Your task to perform on an android device: Is it going to rain today? Image 0: 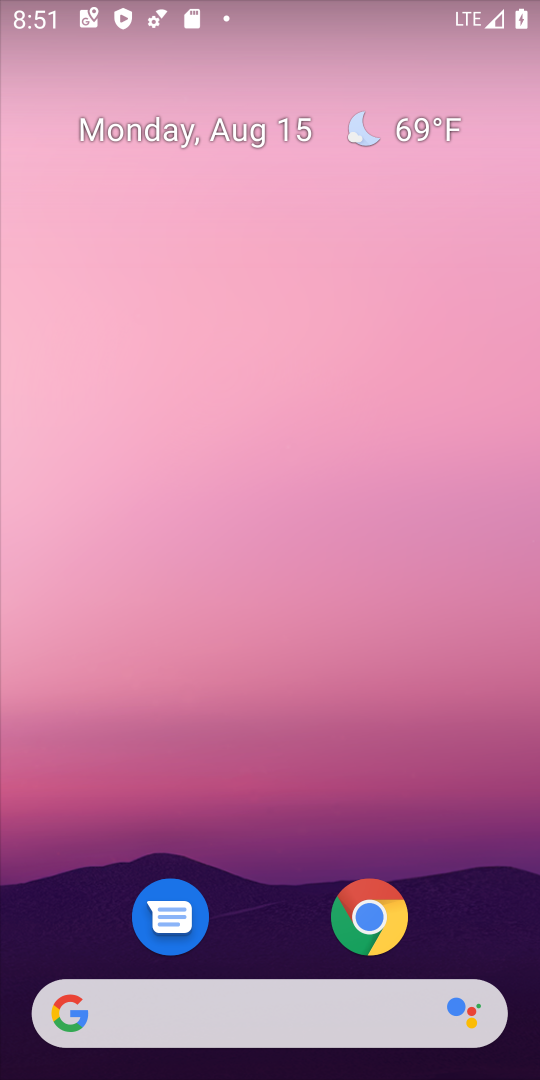
Step 0: click (425, 132)
Your task to perform on an android device: Is it going to rain today? Image 1: 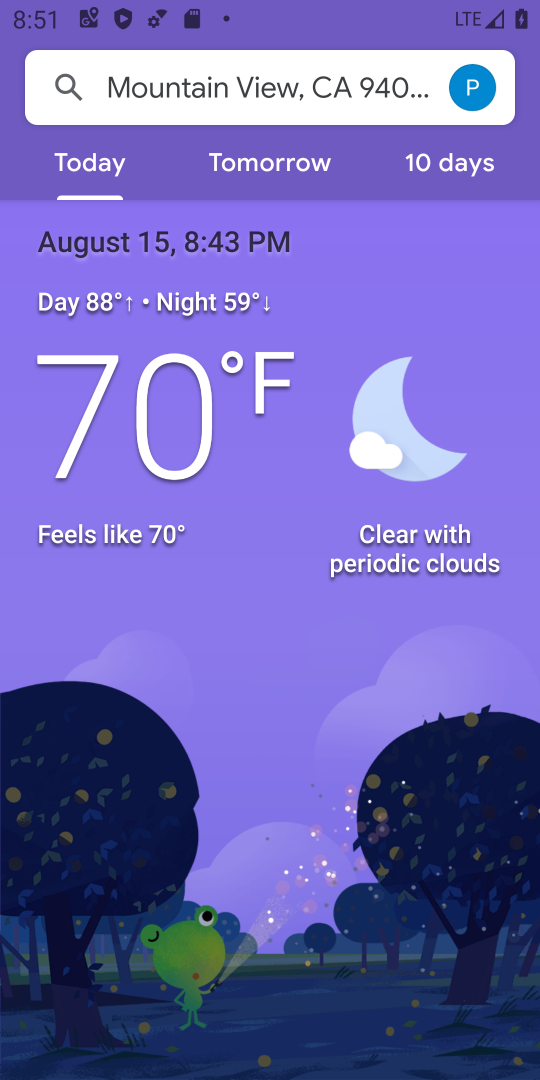
Step 1: task complete